Your task to perform on an android device: turn on location history Image 0: 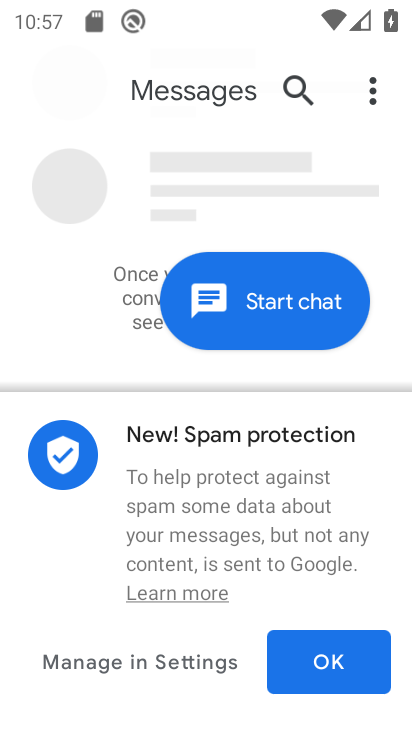
Step 0: press home button
Your task to perform on an android device: turn on location history Image 1: 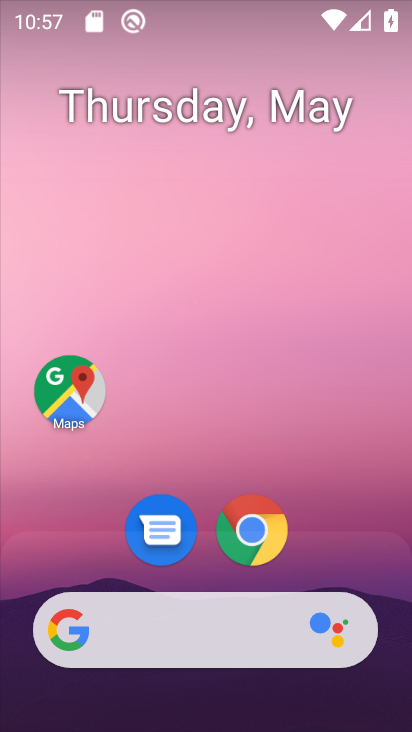
Step 1: drag from (339, 530) to (303, 220)
Your task to perform on an android device: turn on location history Image 2: 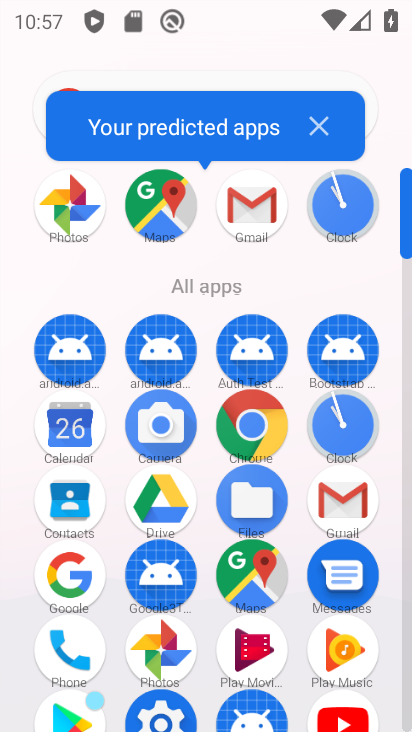
Step 2: click (154, 712)
Your task to perform on an android device: turn on location history Image 3: 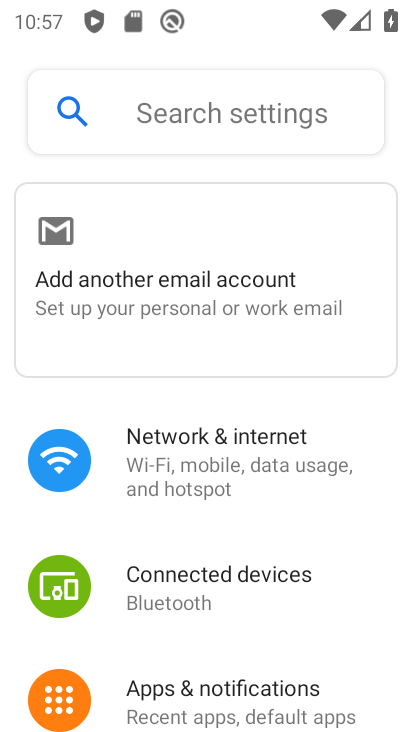
Step 3: drag from (280, 412) to (269, 206)
Your task to perform on an android device: turn on location history Image 4: 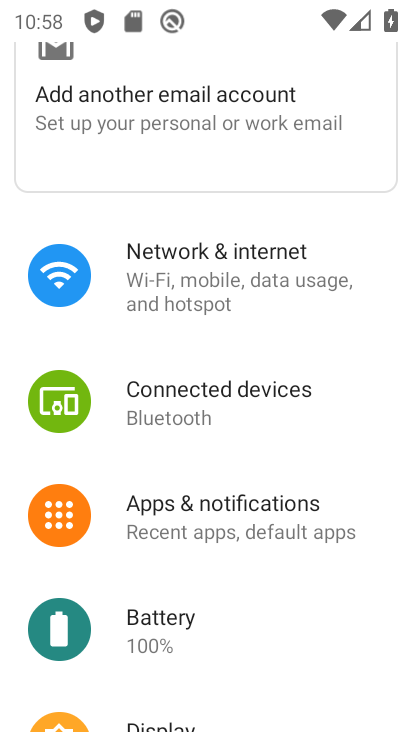
Step 4: drag from (285, 576) to (265, 225)
Your task to perform on an android device: turn on location history Image 5: 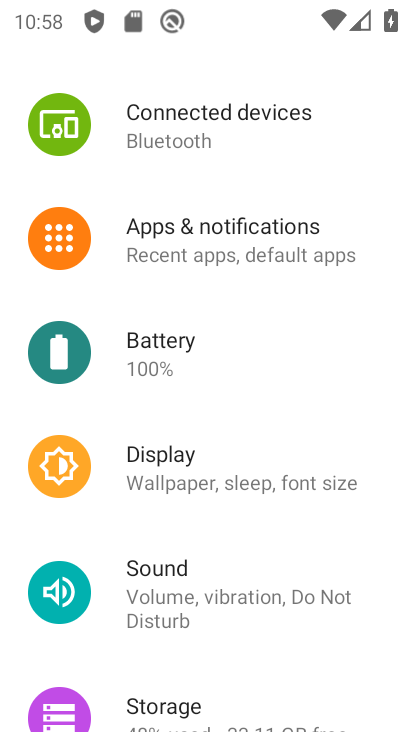
Step 5: drag from (282, 516) to (280, 195)
Your task to perform on an android device: turn on location history Image 6: 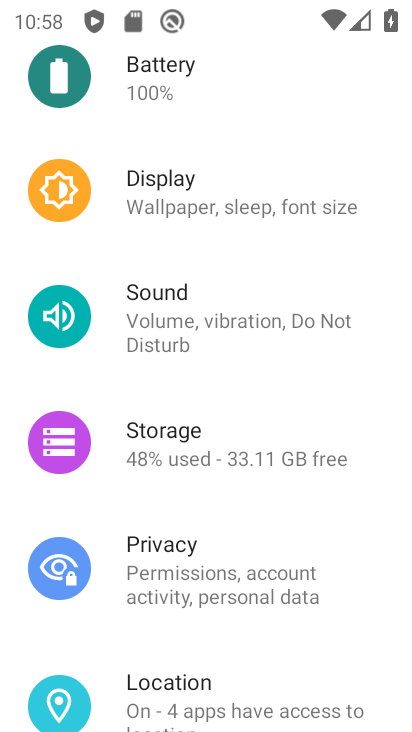
Step 6: click (164, 693)
Your task to perform on an android device: turn on location history Image 7: 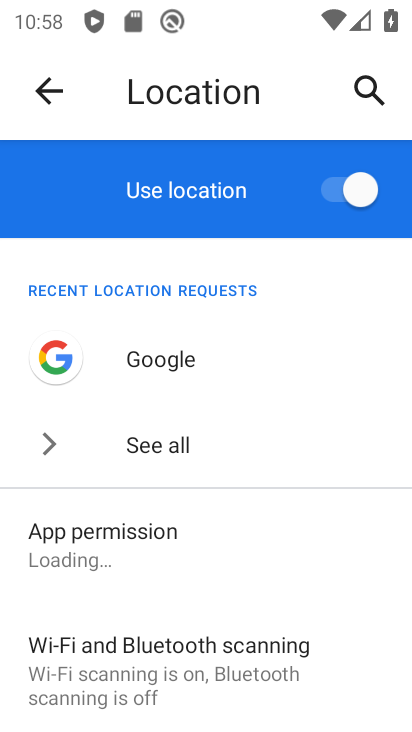
Step 7: drag from (219, 659) to (208, 464)
Your task to perform on an android device: turn on location history Image 8: 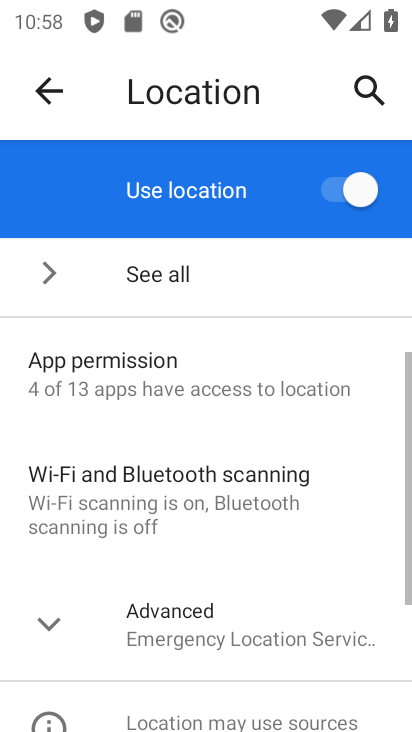
Step 8: click (194, 630)
Your task to perform on an android device: turn on location history Image 9: 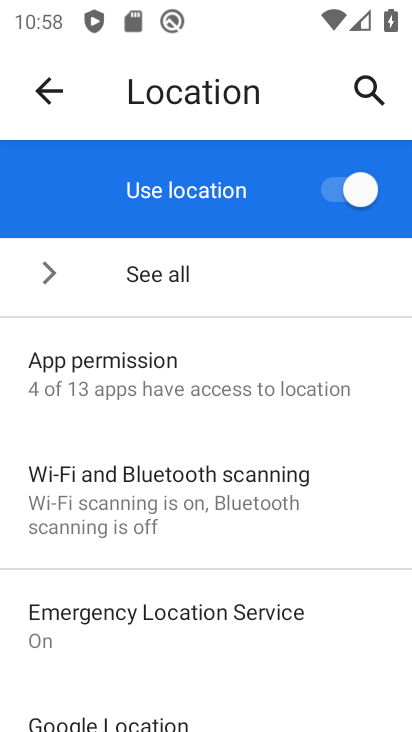
Step 9: drag from (252, 648) to (233, 456)
Your task to perform on an android device: turn on location history Image 10: 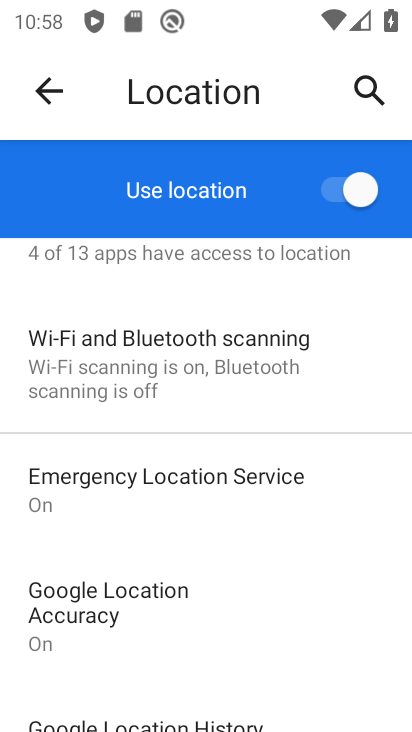
Step 10: drag from (246, 592) to (227, 430)
Your task to perform on an android device: turn on location history Image 11: 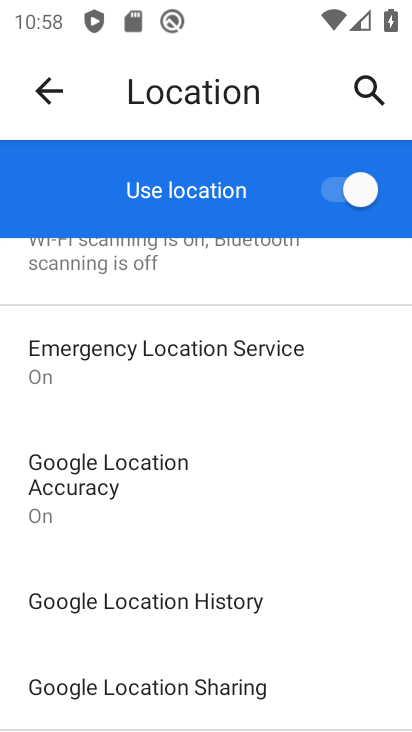
Step 11: click (222, 602)
Your task to perform on an android device: turn on location history Image 12: 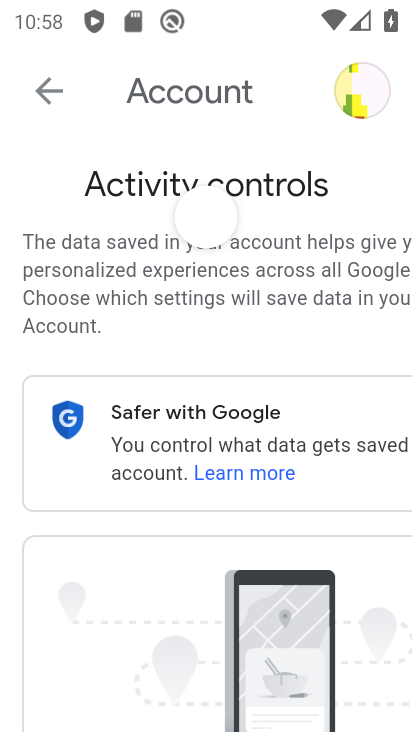
Step 12: drag from (292, 553) to (274, 229)
Your task to perform on an android device: turn on location history Image 13: 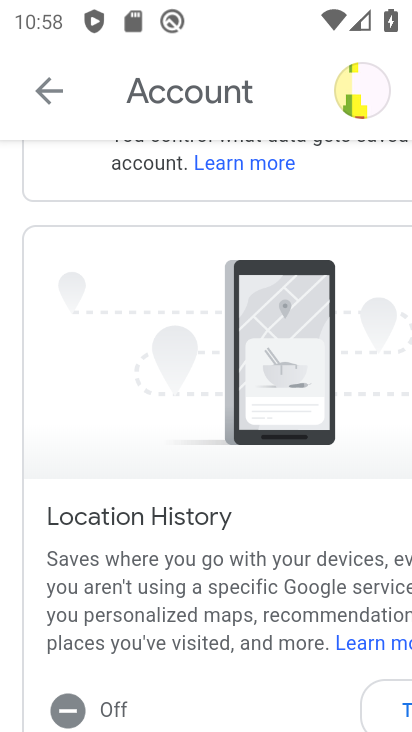
Step 13: drag from (331, 652) to (284, 450)
Your task to perform on an android device: turn on location history Image 14: 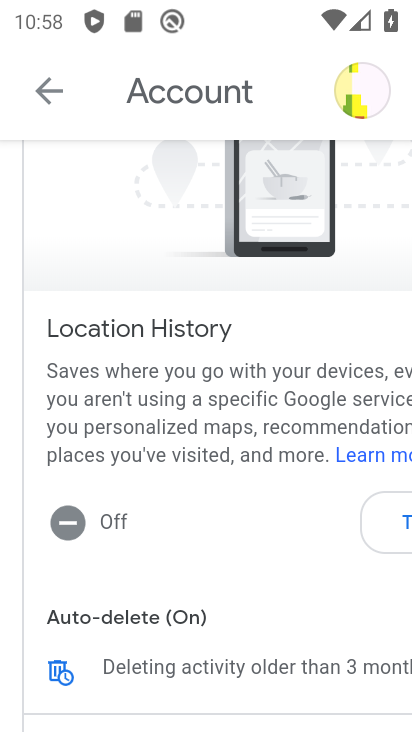
Step 14: click (377, 525)
Your task to perform on an android device: turn on location history Image 15: 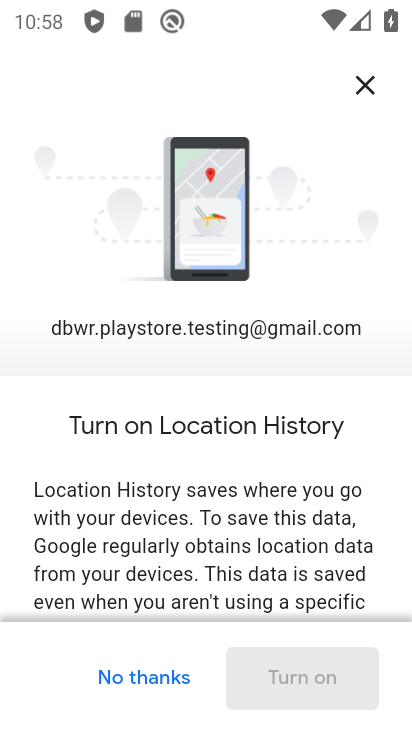
Step 15: drag from (232, 608) to (195, 326)
Your task to perform on an android device: turn on location history Image 16: 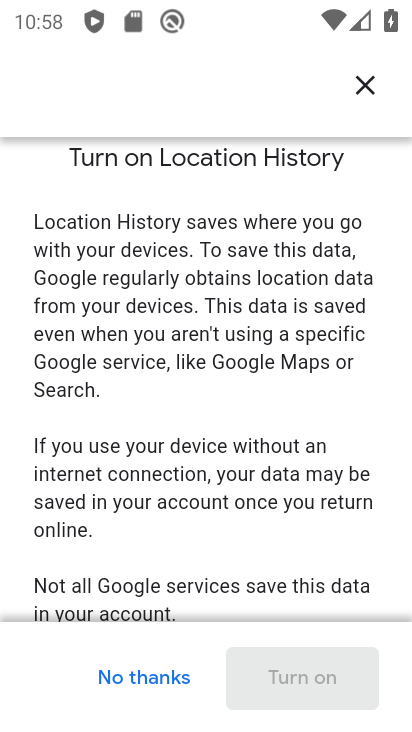
Step 16: drag from (258, 546) to (224, 285)
Your task to perform on an android device: turn on location history Image 17: 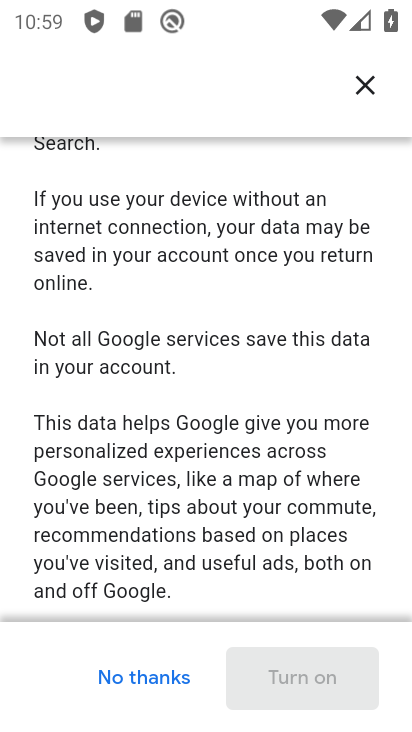
Step 17: drag from (300, 575) to (275, 229)
Your task to perform on an android device: turn on location history Image 18: 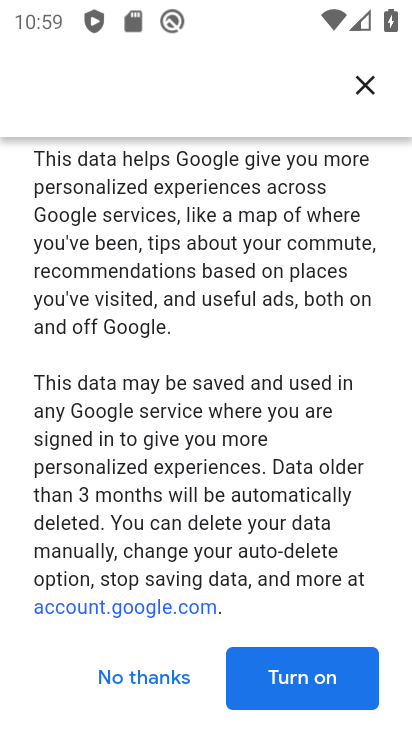
Step 18: click (315, 657)
Your task to perform on an android device: turn on location history Image 19: 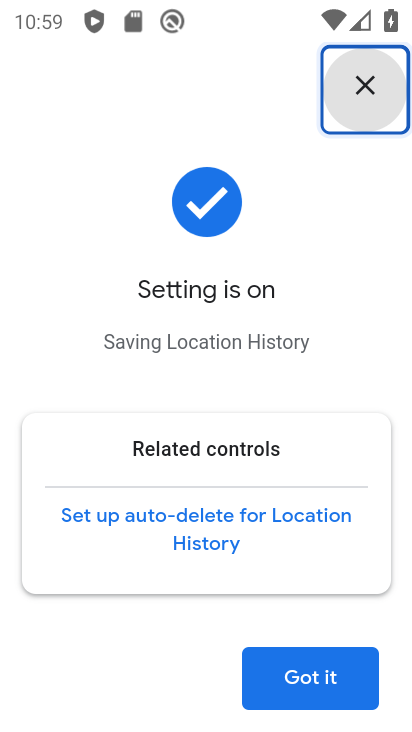
Step 19: click (330, 665)
Your task to perform on an android device: turn on location history Image 20: 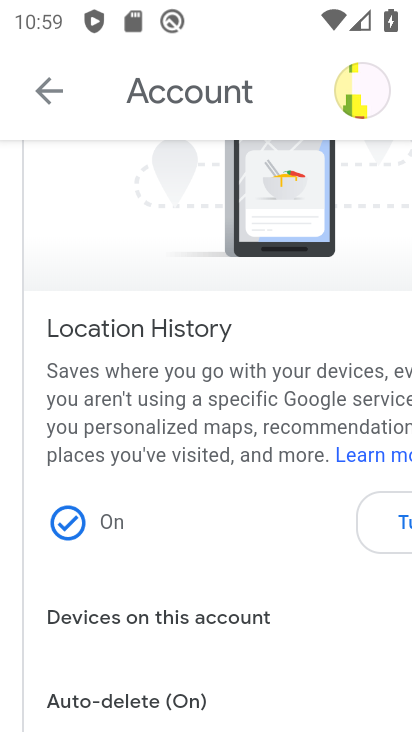
Step 20: task complete